Your task to perform on an android device: turn off smart reply in the gmail app Image 0: 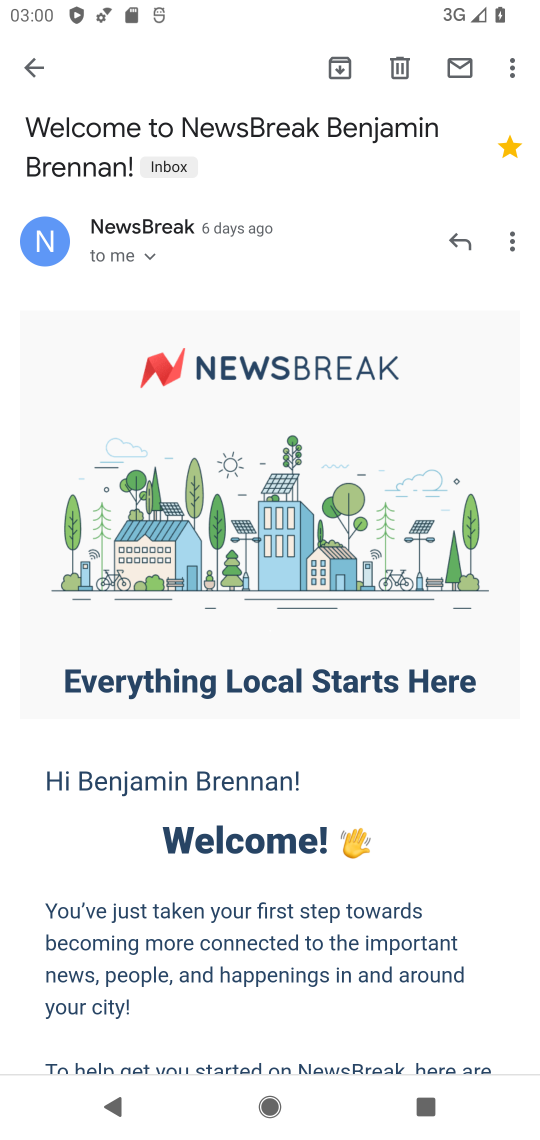
Step 0: press home button
Your task to perform on an android device: turn off smart reply in the gmail app Image 1: 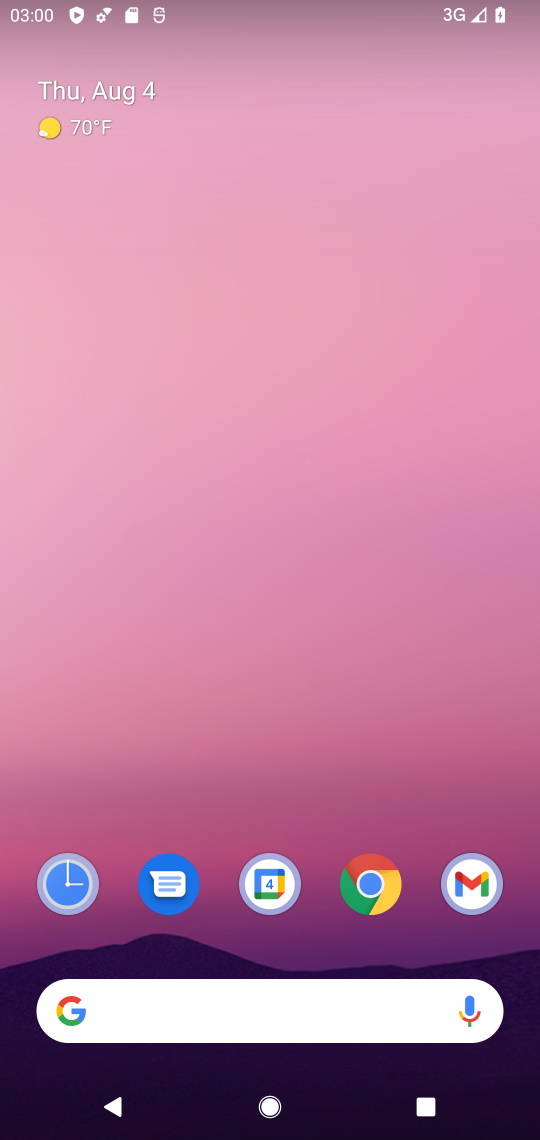
Step 1: drag from (315, 834) to (349, 260)
Your task to perform on an android device: turn off smart reply in the gmail app Image 2: 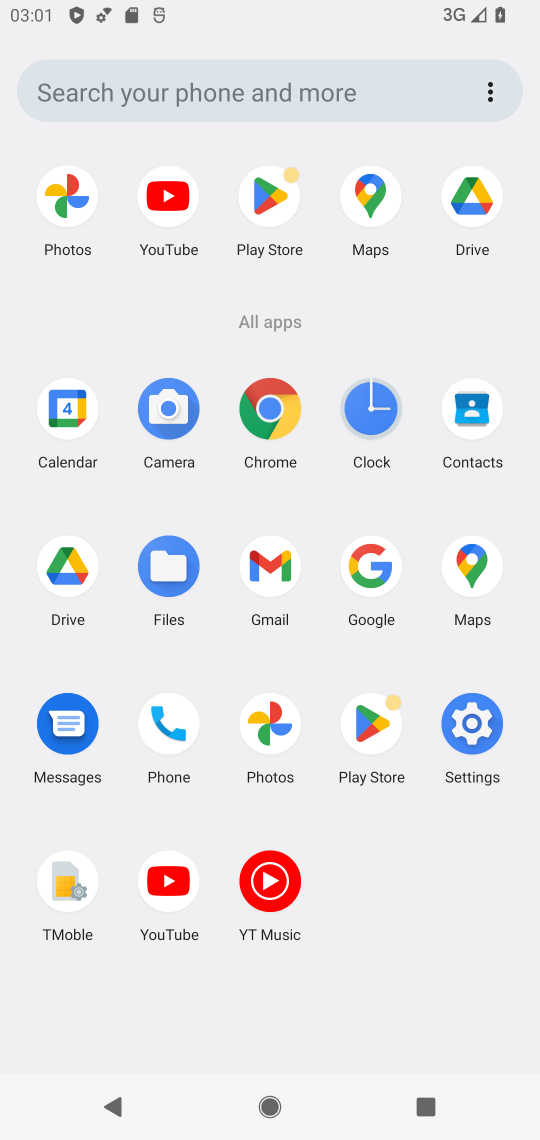
Step 2: click (267, 582)
Your task to perform on an android device: turn off smart reply in the gmail app Image 3: 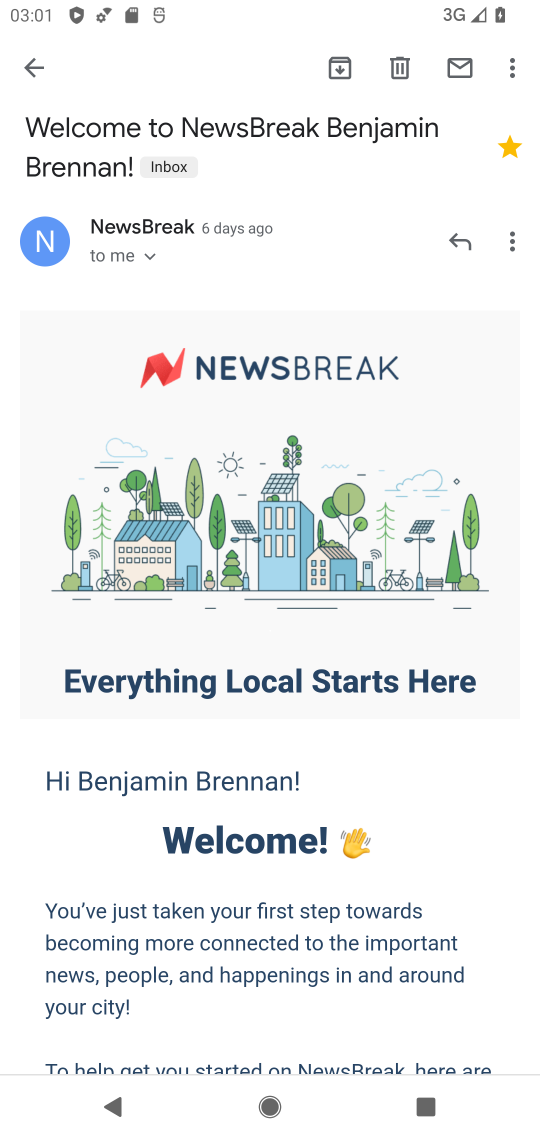
Step 3: press back button
Your task to perform on an android device: turn off smart reply in the gmail app Image 4: 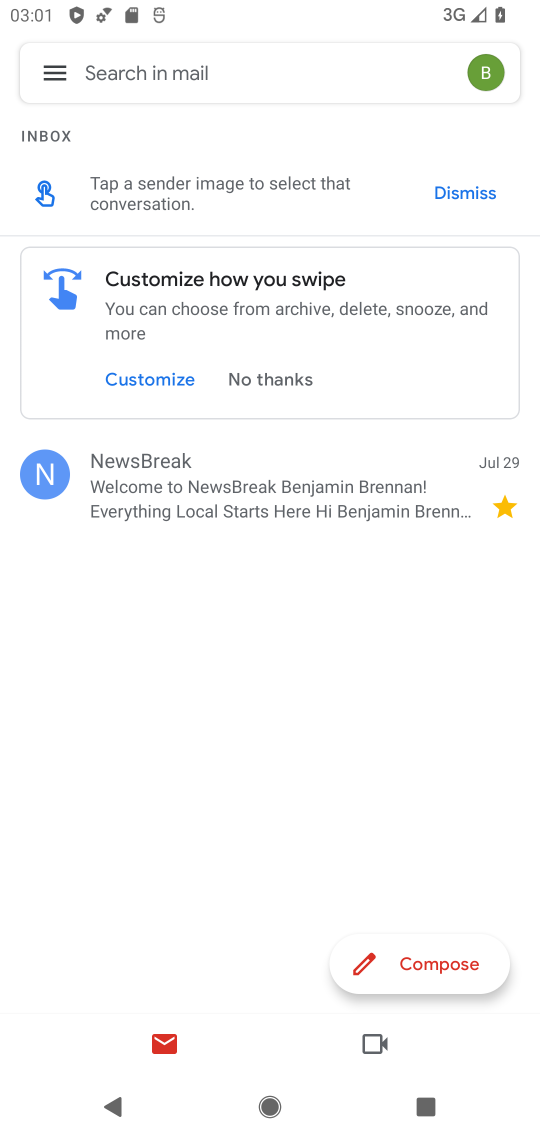
Step 4: click (57, 77)
Your task to perform on an android device: turn off smart reply in the gmail app Image 5: 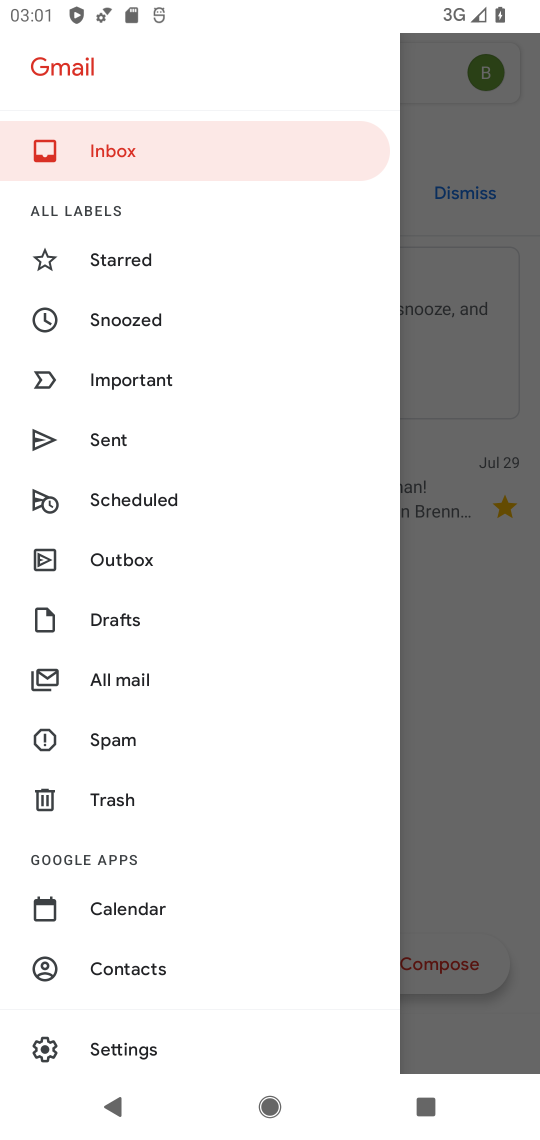
Step 5: drag from (278, 751) to (293, 559)
Your task to perform on an android device: turn off smart reply in the gmail app Image 6: 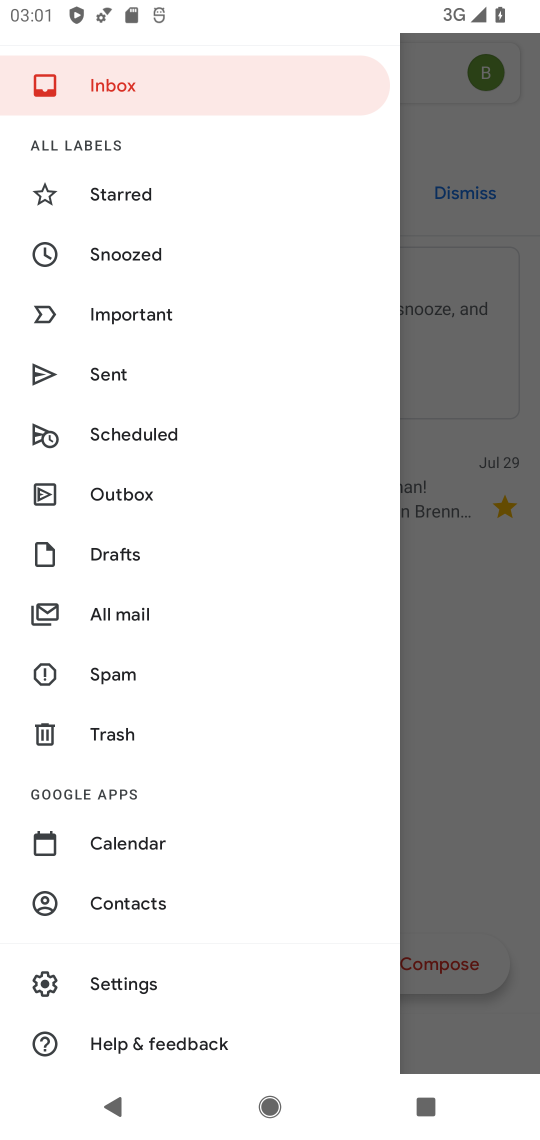
Step 6: click (213, 985)
Your task to perform on an android device: turn off smart reply in the gmail app Image 7: 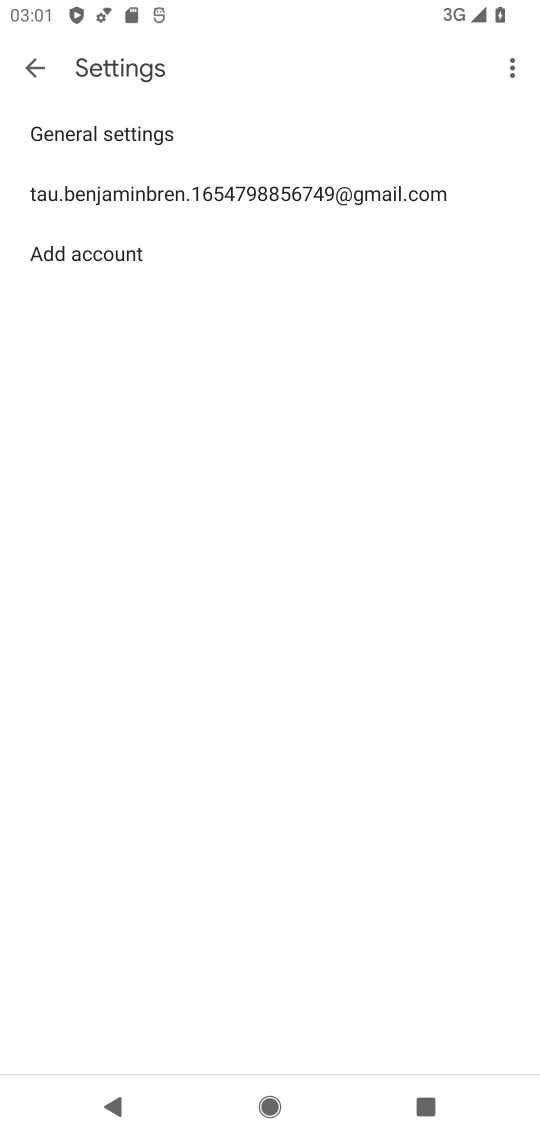
Step 7: drag from (295, 854) to (303, 483)
Your task to perform on an android device: turn off smart reply in the gmail app Image 8: 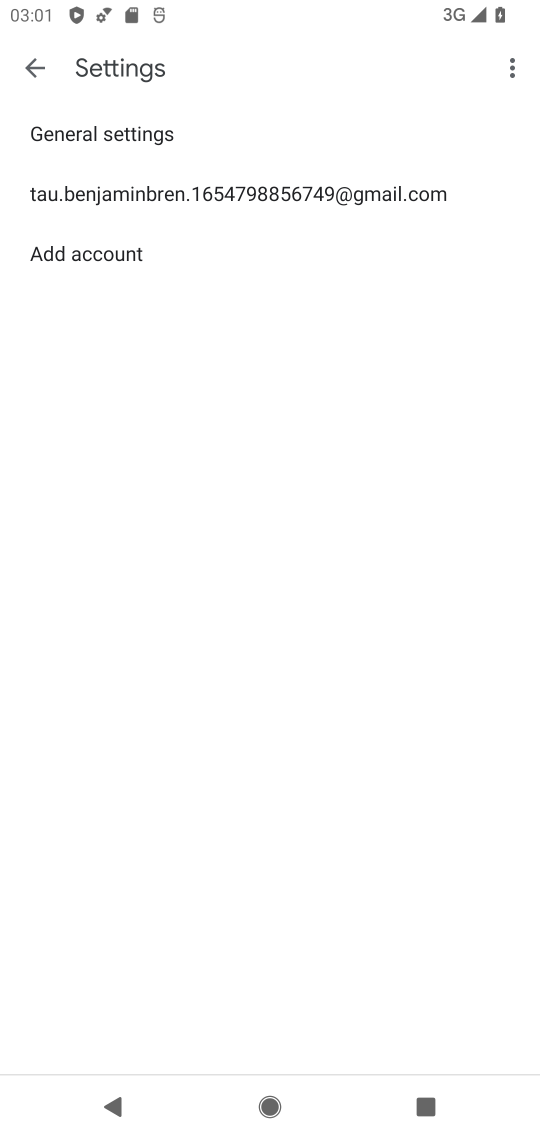
Step 8: click (333, 195)
Your task to perform on an android device: turn off smart reply in the gmail app Image 9: 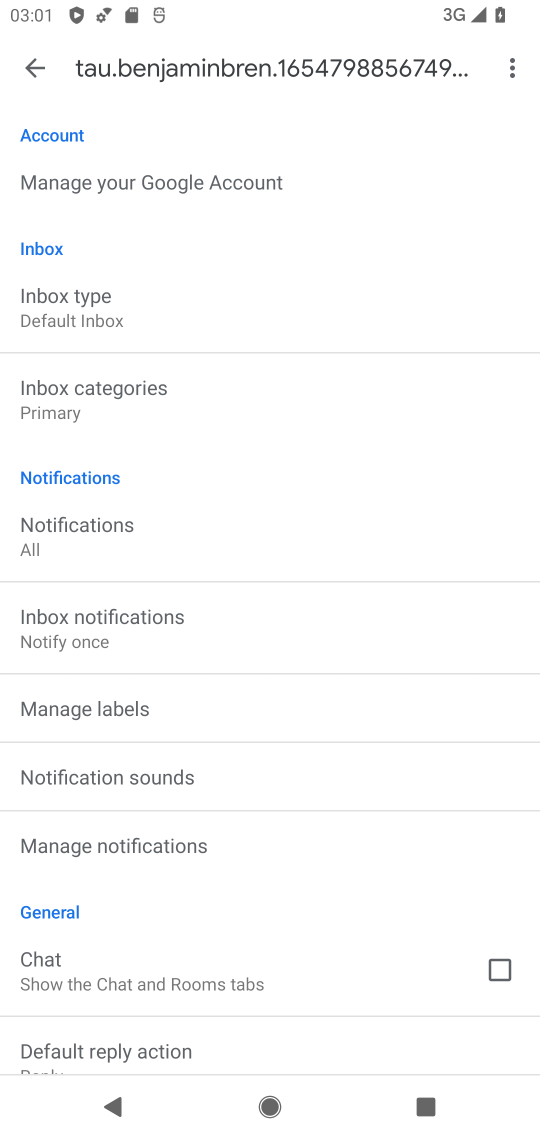
Step 9: drag from (345, 632) to (340, 479)
Your task to perform on an android device: turn off smart reply in the gmail app Image 10: 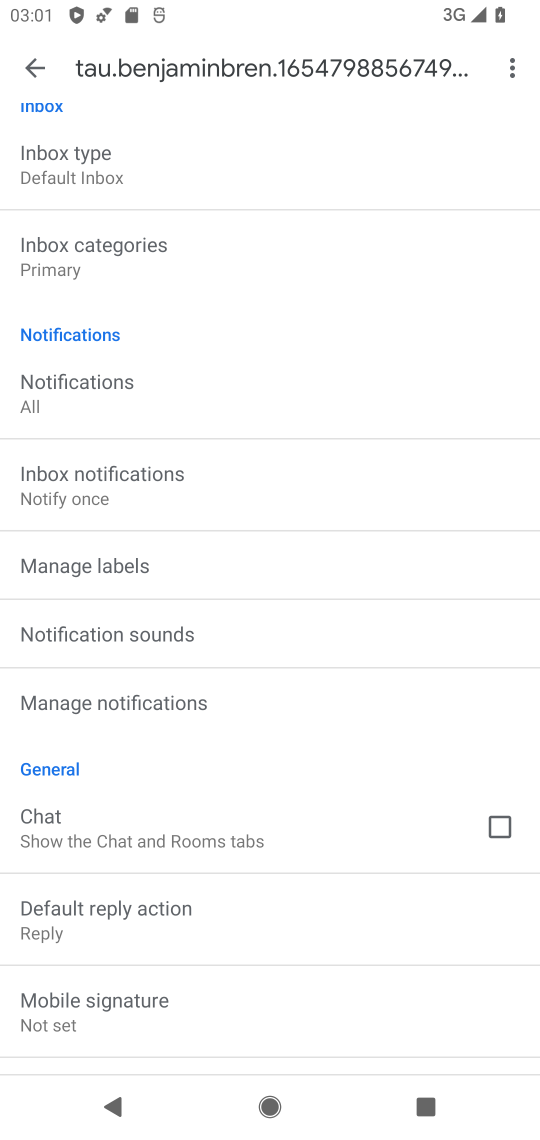
Step 10: drag from (375, 864) to (381, 579)
Your task to perform on an android device: turn off smart reply in the gmail app Image 11: 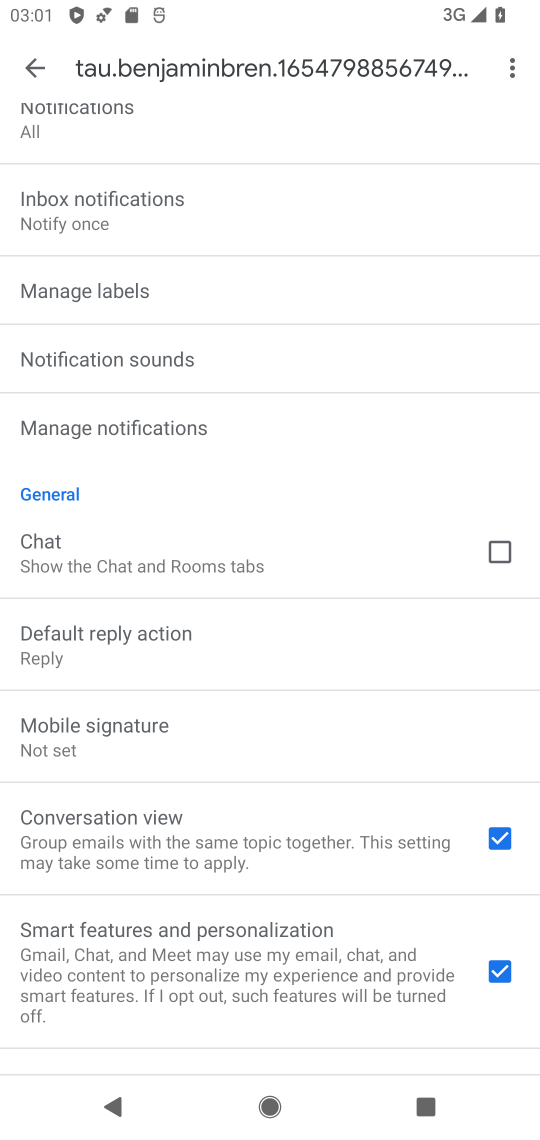
Step 11: drag from (314, 905) to (331, 661)
Your task to perform on an android device: turn off smart reply in the gmail app Image 12: 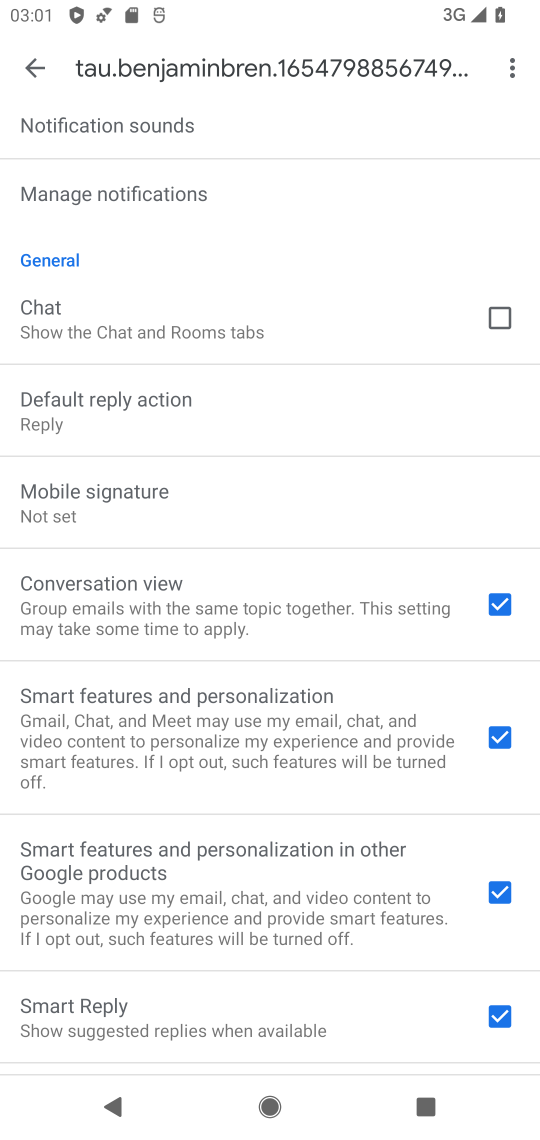
Step 12: drag from (333, 962) to (372, 692)
Your task to perform on an android device: turn off smart reply in the gmail app Image 13: 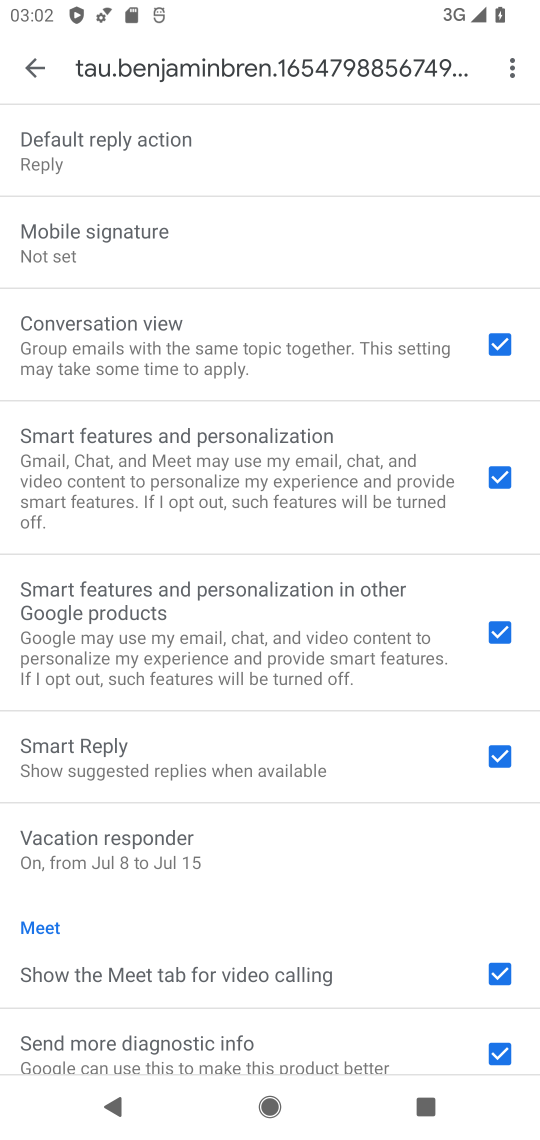
Step 13: drag from (365, 926) to (382, 672)
Your task to perform on an android device: turn off smart reply in the gmail app Image 14: 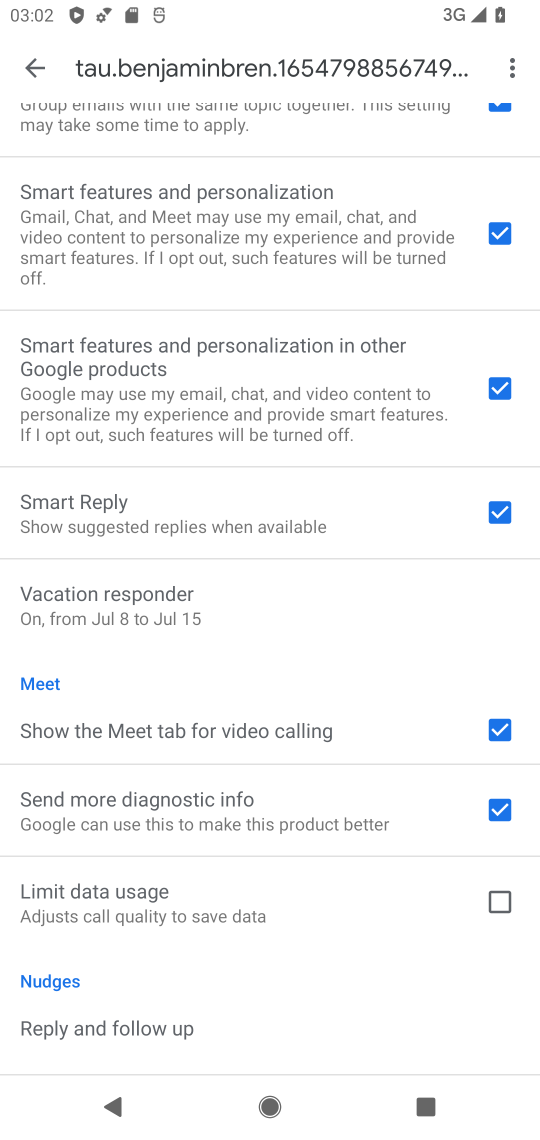
Step 14: click (507, 514)
Your task to perform on an android device: turn off smart reply in the gmail app Image 15: 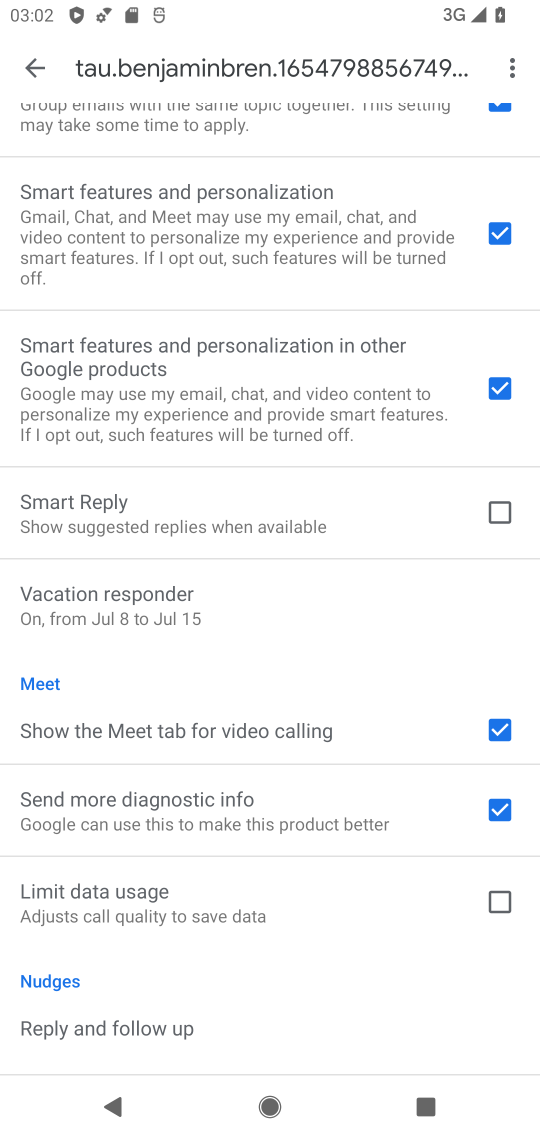
Step 15: task complete